Your task to perform on an android device: turn off notifications in google photos Image 0: 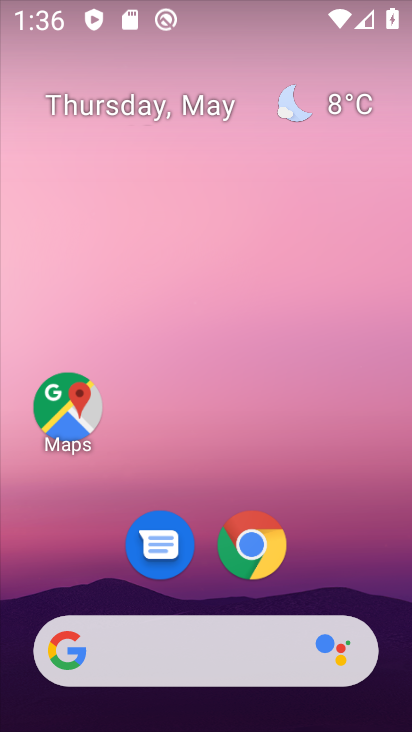
Step 0: drag from (390, 641) to (349, 114)
Your task to perform on an android device: turn off notifications in google photos Image 1: 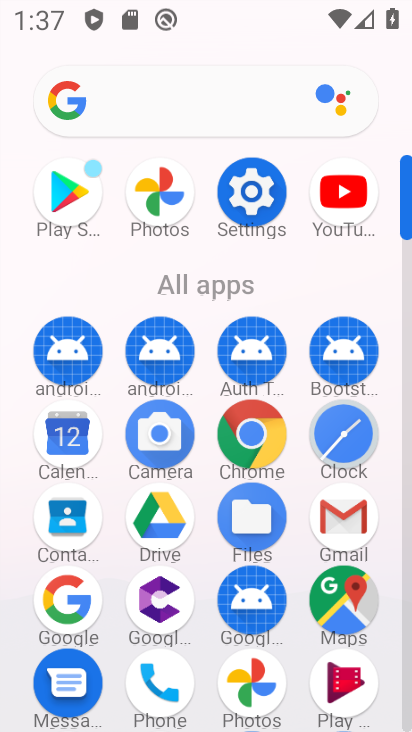
Step 1: click (406, 689)
Your task to perform on an android device: turn off notifications in google photos Image 2: 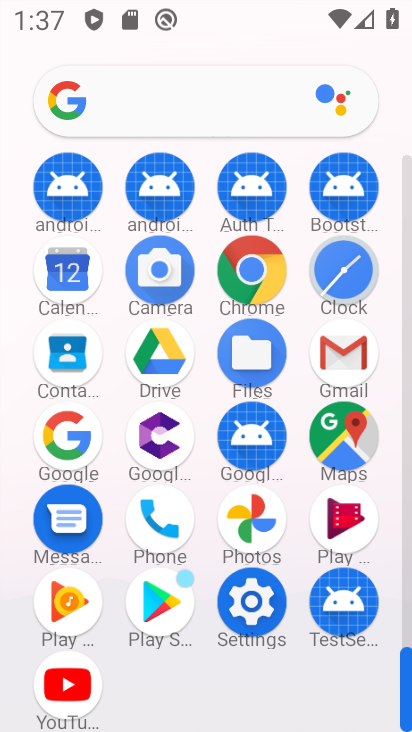
Step 2: click (250, 511)
Your task to perform on an android device: turn off notifications in google photos Image 3: 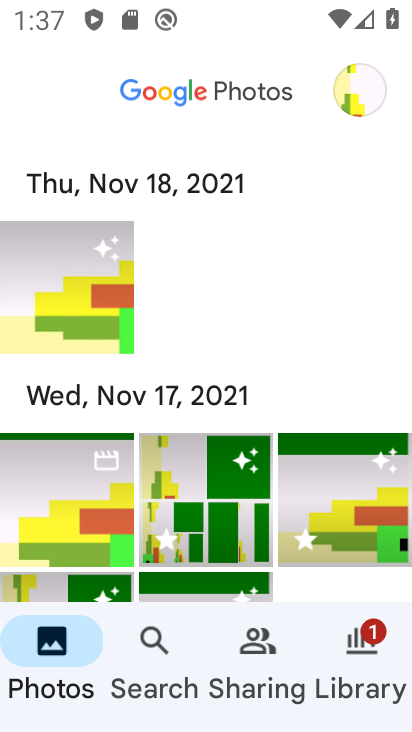
Step 3: click (357, 107)
Your task to perform on an android device: turn off notifications in google photos Image 4: 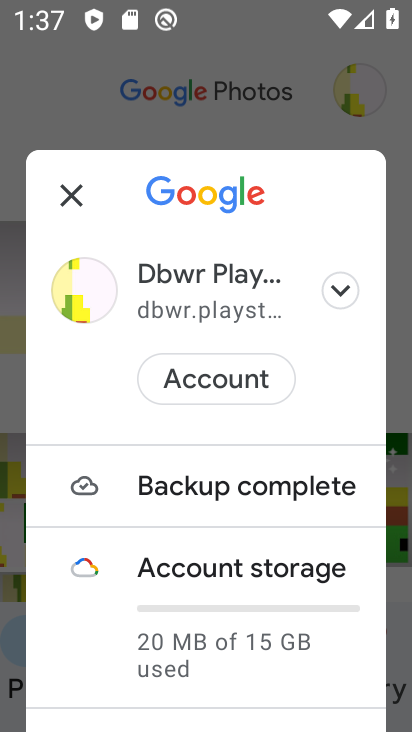
Step 4: drag from (264, 558) to (228, 200)
Your task to perform on an android device: turn off notifications in google photos Image 5: 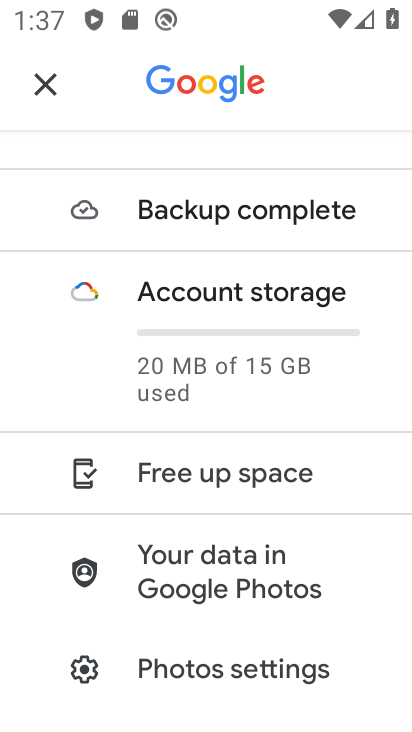
Step 5: click (175, 675)
Your task to perform on an android device: turn off notifications in google photos Image 6: 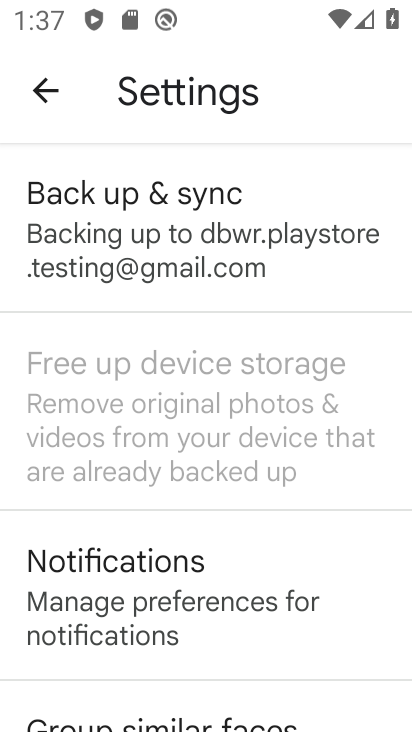
Step 6: click (159, 595)
Your task to perform on an android device: turn off notifications in google photos Image 7: 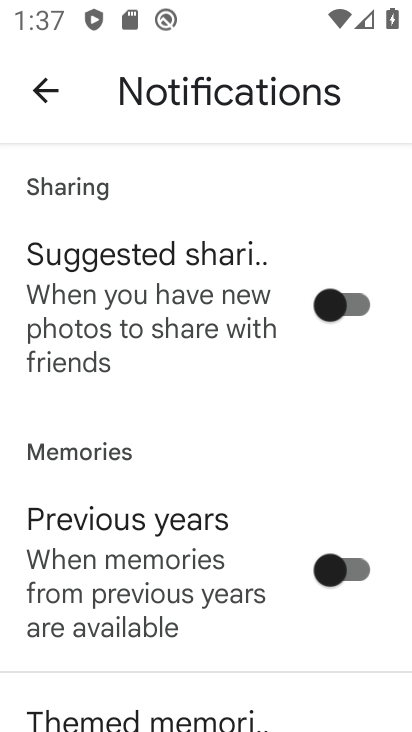
Step 7: drag from (214, 581) to (225, 152)
Your task to perform on an android device: turn off notifications in google photos Image 8: 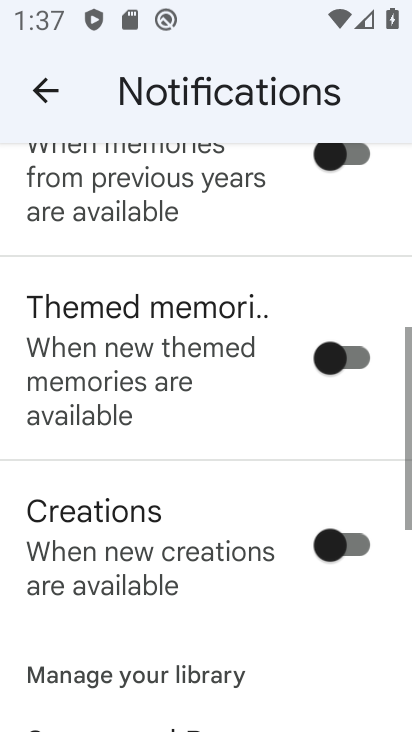
Step 8: drag from (226, 638) to (235, 268)
Your task to perform on an android device: turn off notifications in google photos Image 9: 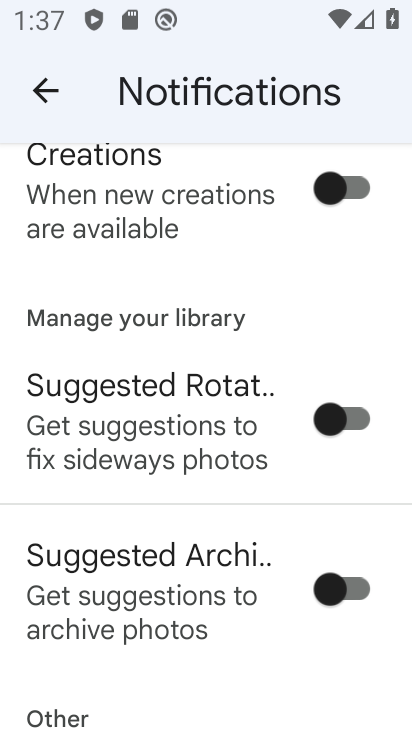
Step 9: drag from (217, 596) to (214, 225)
Your task to perform on an android device: turn off notifications in google photos Image 10: 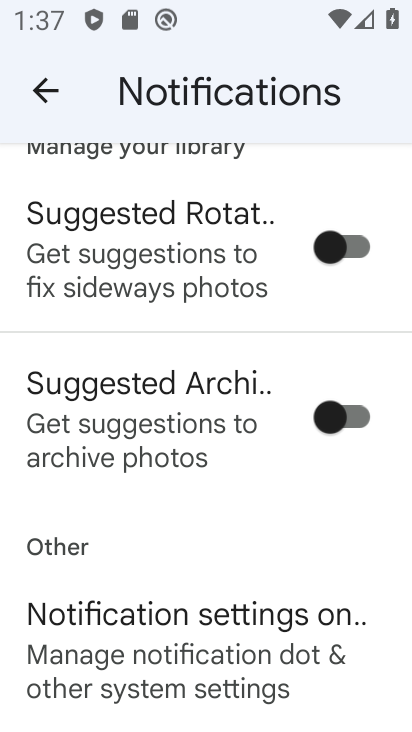
Step 10: click (179, 639)
Your task to perform on an android device: turn off notifications in google photos Image 11: 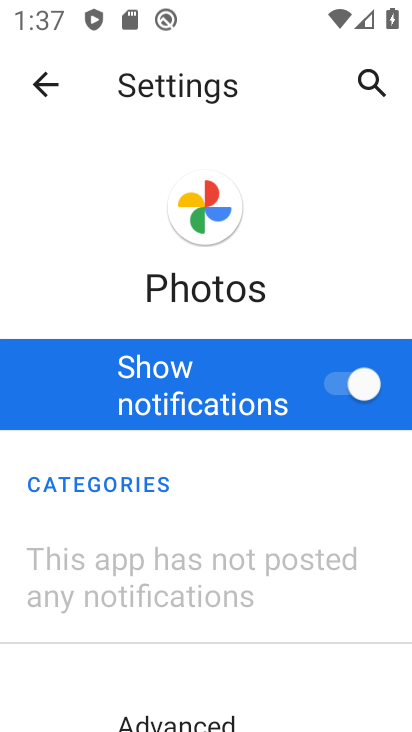
Step 11: click (324, 368)
Your task to perform on an android device: turn off notifications in google photos Image 12: 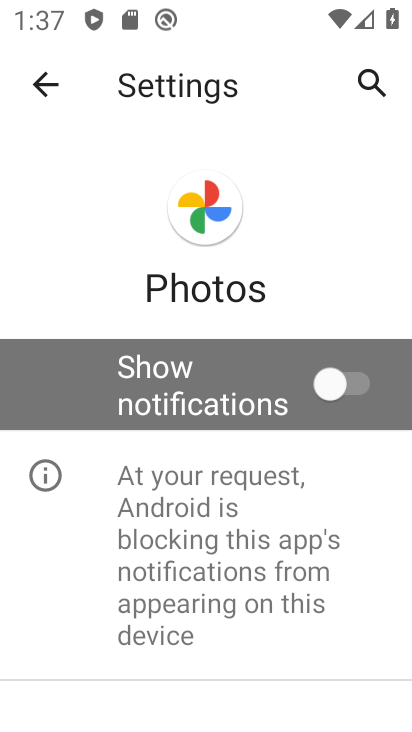
Step 12: task complete